Your task to perform on an android device: Open Google Chrome and open the bookmarks view Image 0: 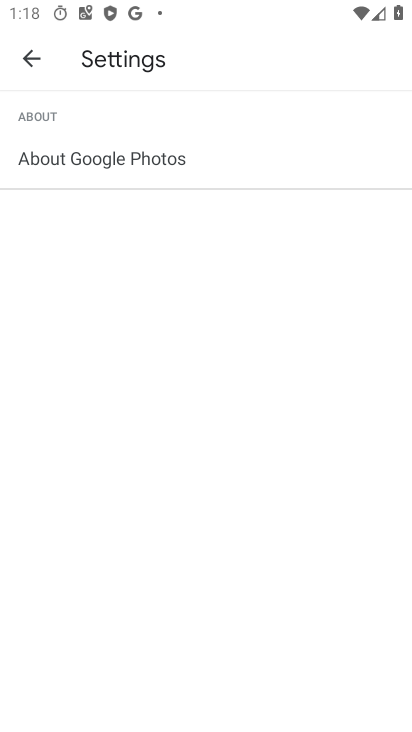
Step 0: drag from (10, 619) to (48, 620)
Your task to perform on an android device: Open Google Chrome and open the bookmarks view Image 1: 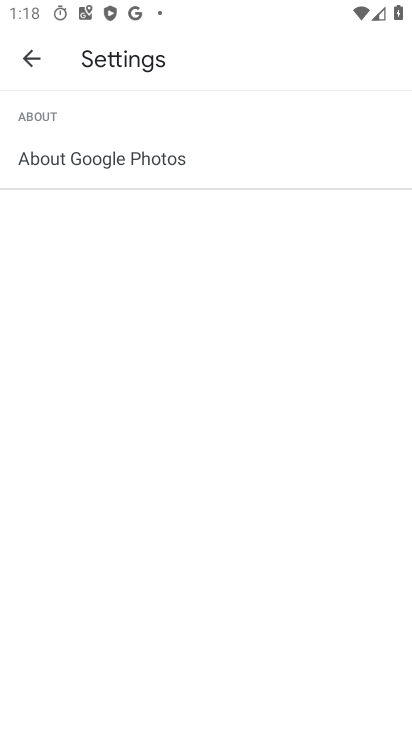
Step 1: drag from (126, 638) to (298, 249)
Your task to perform on an android device: Open Google Chrome and open the bookmarks view Image 2: 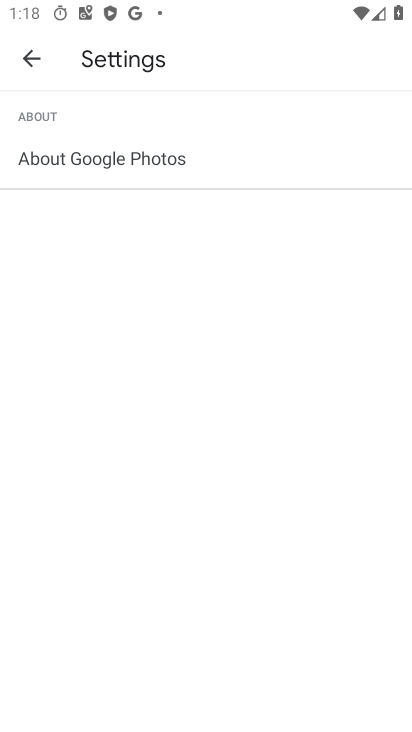
Step 2: press home button
Your task to perform on an android device: Open Google Chrome and open the bookmarks view Image 3: 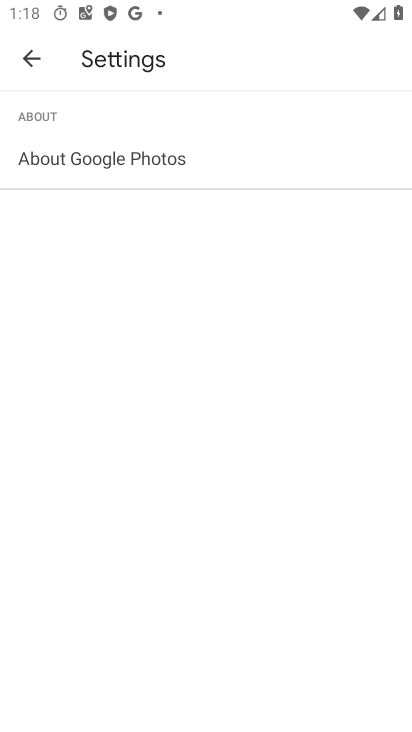
Step 3: press home button
Your task to perform on an android device: Open Google Chrome and open the bookmarks view Image 4: 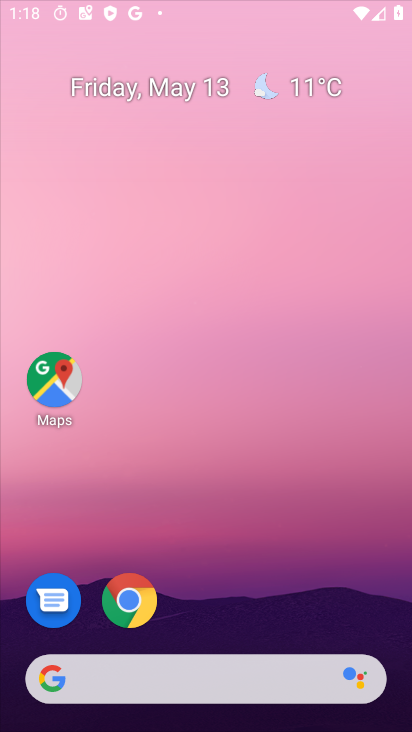
Step 4: drag from (192, 635) to (333, 194)
Your task to perform on an android device: Open Google Chrome and open the bookmarks view Image 5: 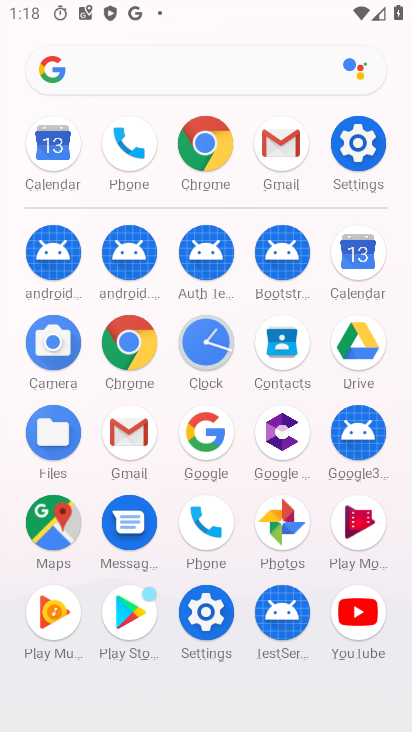
Step 5: click (119, 358)
Your task to perform on an android device: Open Google Chrome and open the bookmarks view Image 6: 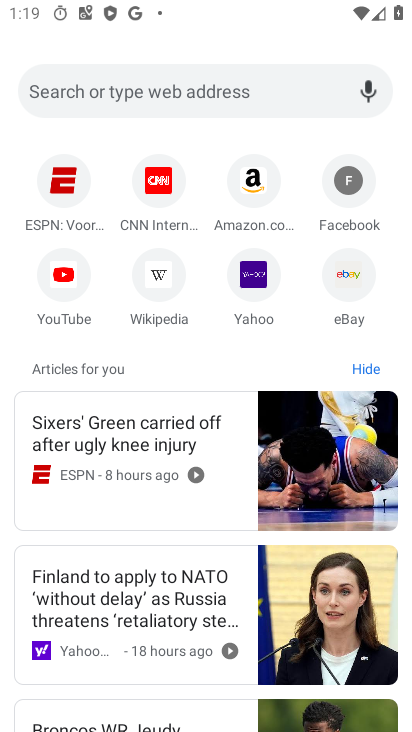
Step 6: drag from (325, 139) to (318, 531)
Your task to perform on an android device: Open Google Chrome and open the bookmarks view Image 7: 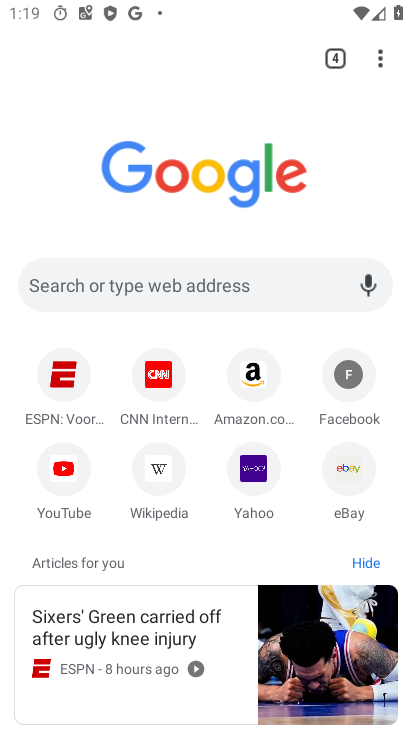
Step 7: click (371, 71)
Your task to perform on an android device: Open Google Chrome and open the bookmarks view Image 8: 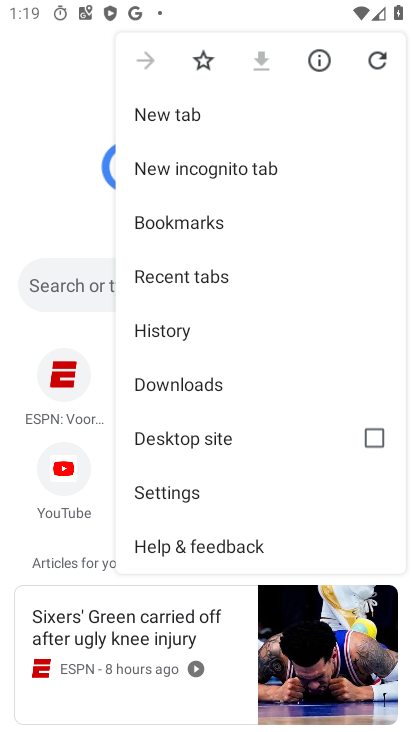
Step 8: click (195, 210)
Your task to perform on an android device: Open Google Chrome and open the bookmarks view Image 9: 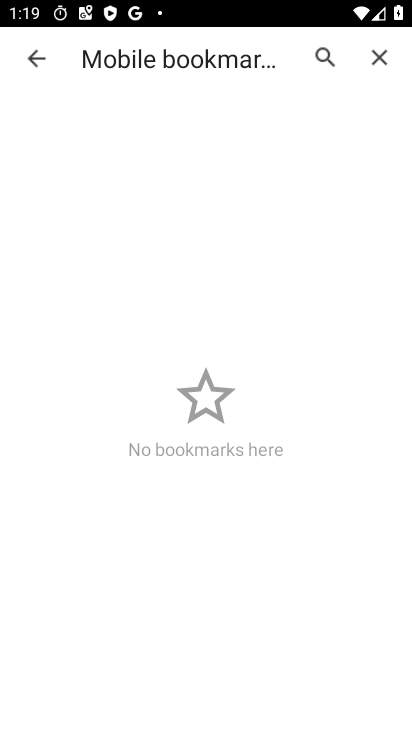
Step 9: task complete